Your task to perform on an android device: turn pop-ups off in chrome Image 0: 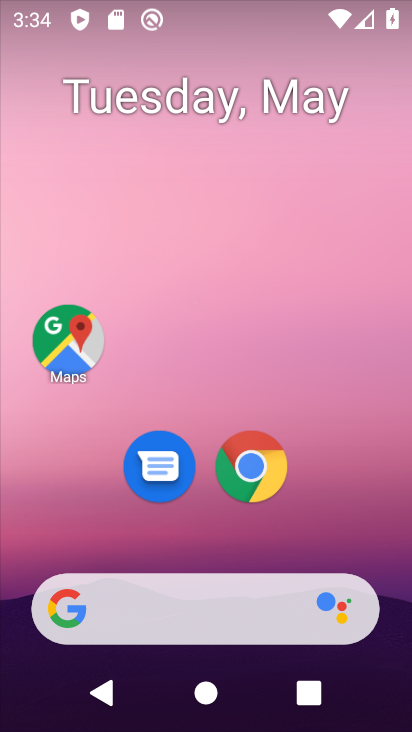
Step 0: click (273, 488)
Your task to perform on an android device: turn pop-ups off in chrome Image 1: 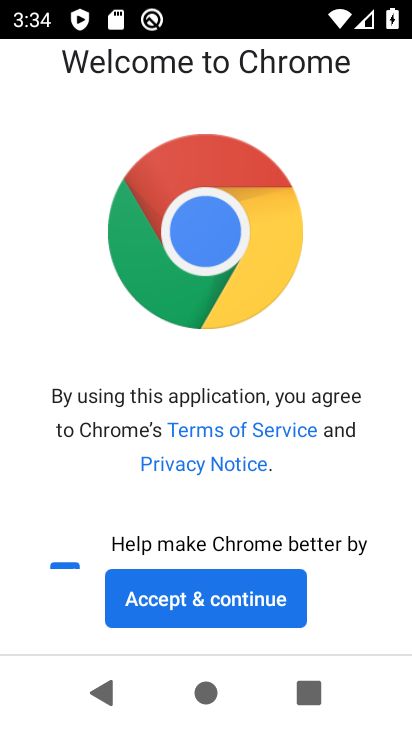
Step 1: click (246, 606)
Your task to perform on an android device: turn pop-ups off in chrome Image 2: 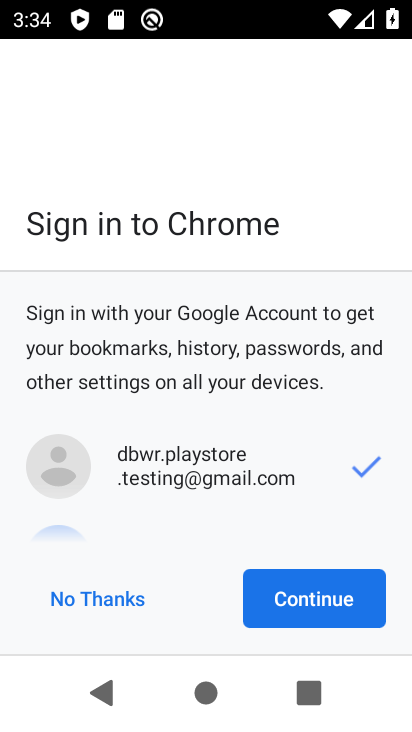
Step 2: click (253, 603)
Your task to perform on an android device: turn pop-ups off in chrome Image 3: 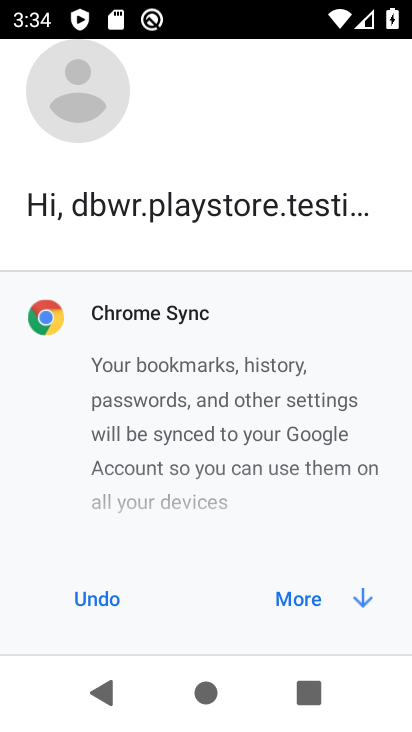
Step 3: click (322, 609)
Your task to perform on an android device: turn pop-ups off in chrome Image 4: 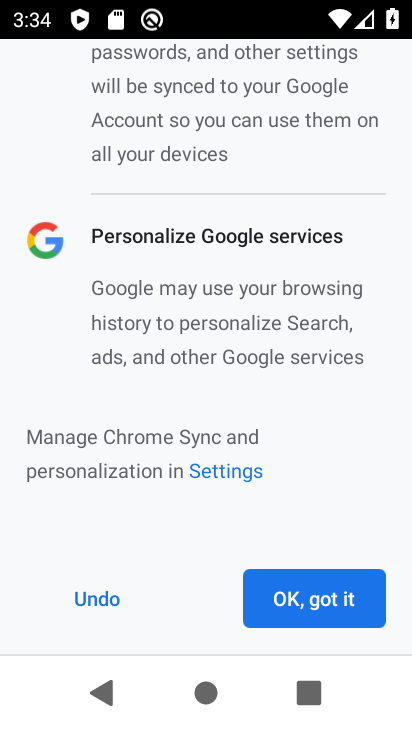
Step 4: click (323, 607)
Your task to perform on an android device: turn pop-ups off in chrome Image 5: 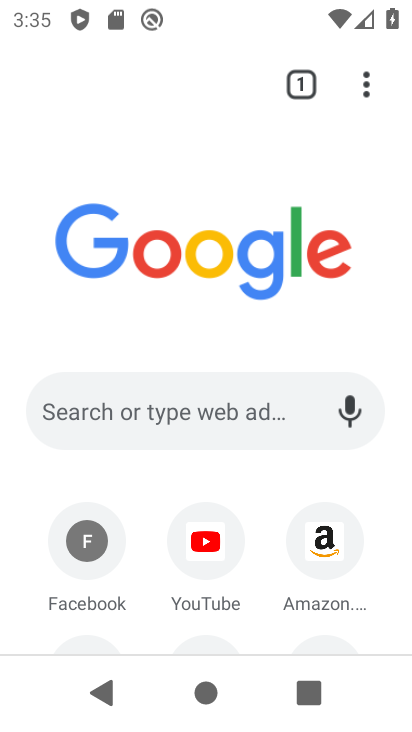
Step 5: click (374, 94)
Your task to perform on an android device: turn pop-ups off in chrome Image 6: 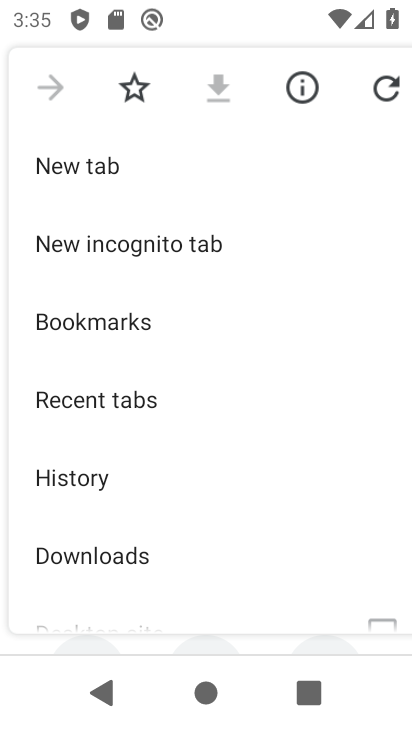
Step 6: drag from (169, 533) to (145, 117)
Your task to perform on an android device: turn pop-ups off in chrome Image 7: 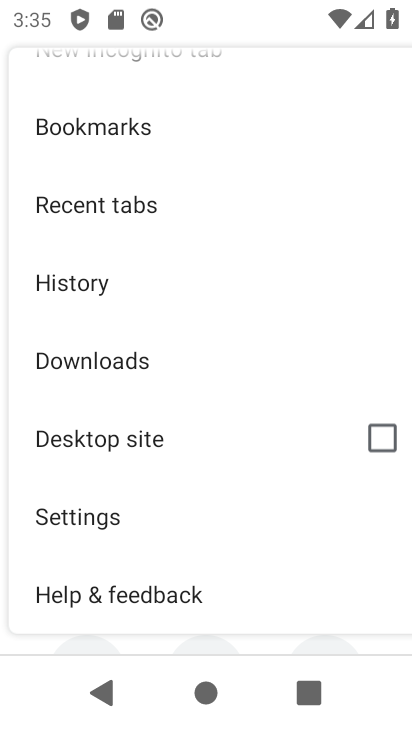
Step 7: click (104, 525)
Your task to perform on an android device: turn pop-ups off in chrome Image 8: 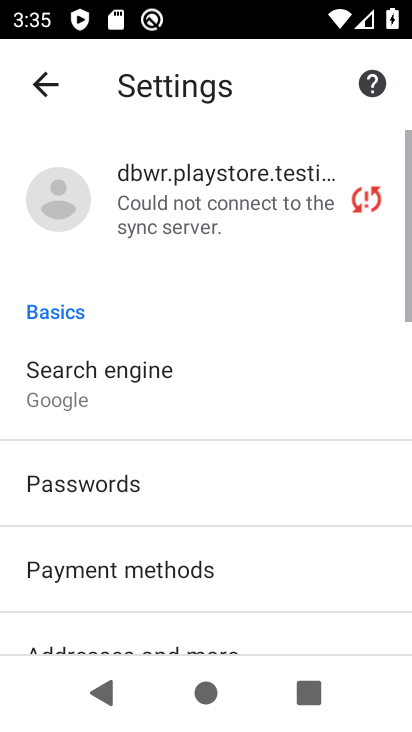
Step 8: drag from (215, 567) to (223, 257)
Your task to perform on an android device: turn pop-ups off in chrome Image 9: 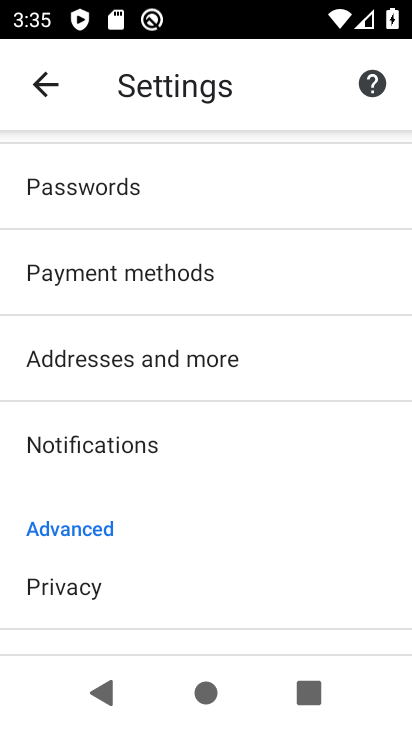
Step 9: drag from (161, 584) to (160, 285)
Your task to perform on an android device: turn pop-ups off in chrome Image 10: 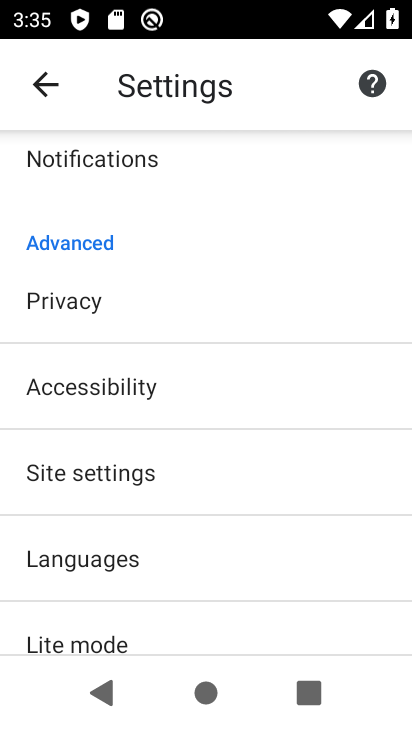
Step 10: click (100, 487)
Your task to perform on an android device: turn pop-ups off in chrome Image 11: 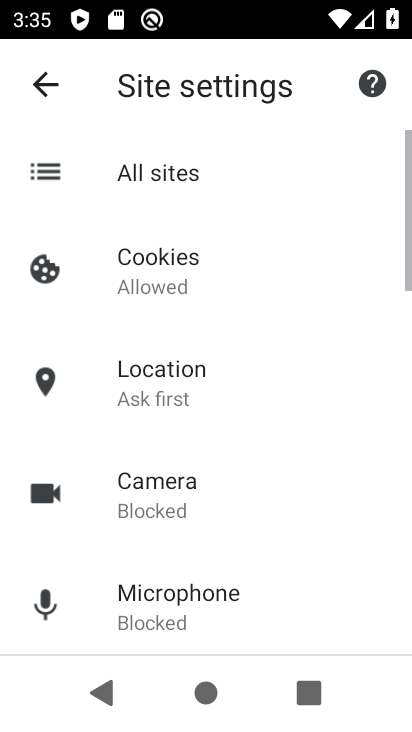
Step 11: drag from (241, 476) to (267, 198)
Your task to perform on an android device: turn pop-ups off in chrome Image 12: 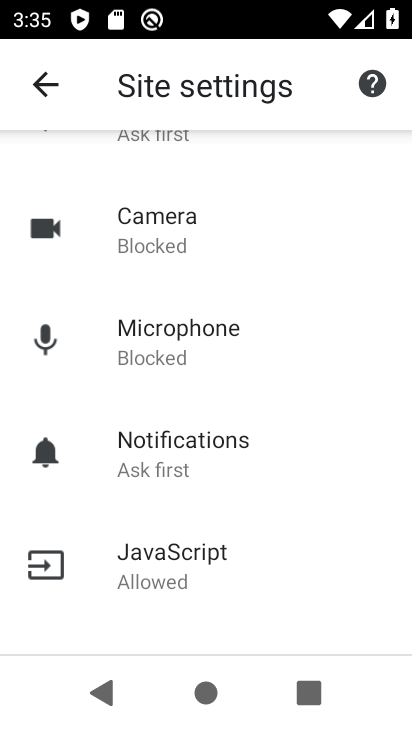
Step 12: drag from (225, 528) to (213, 302)
Your task to perform on an android device: turn pop-ups off in chrome Image 13: 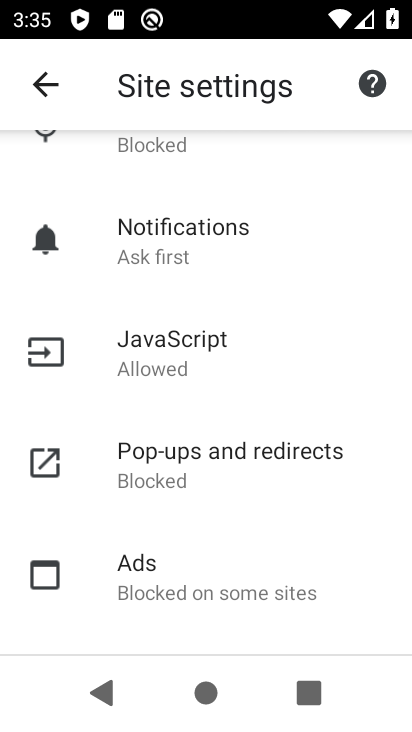
Step 13: click (200, 476)
Your task to perform on an android device: turn pop-ups off in chrome Image 14: 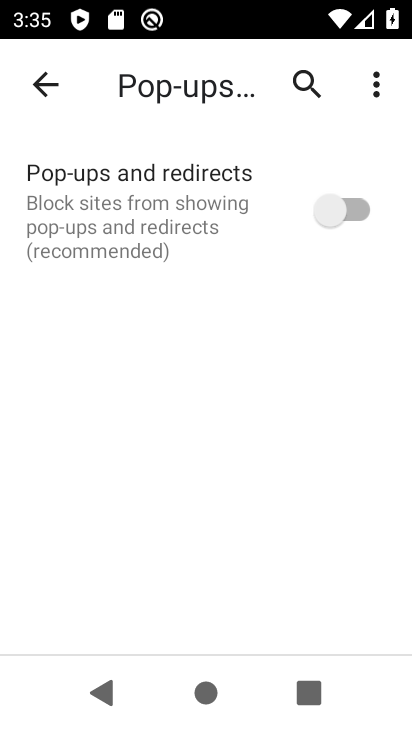
Step 14: task complete